Your task to perform on an android device: delete location history Image 0: 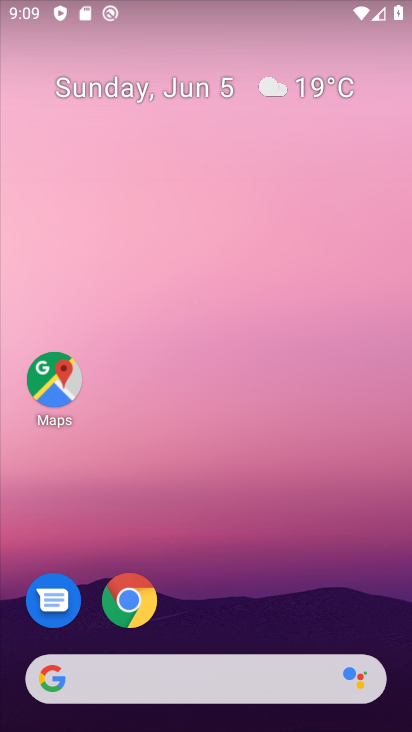
Step 0: task complete